Your task to perform on an android device: Go to Google maps Image 0: 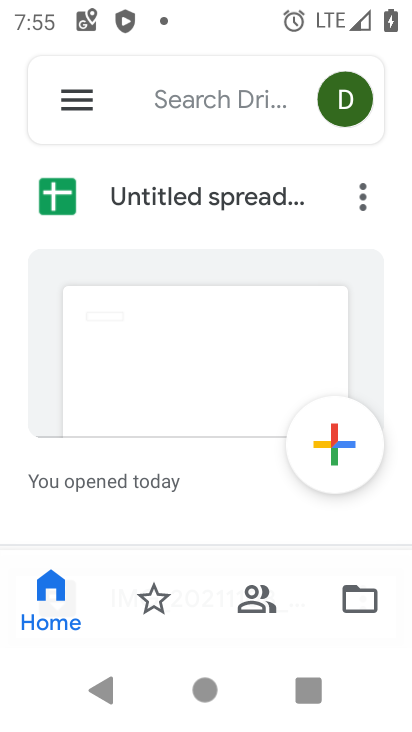
Step 0: press home button
Your task to perform on an android device: Go to Google maps Image 1: 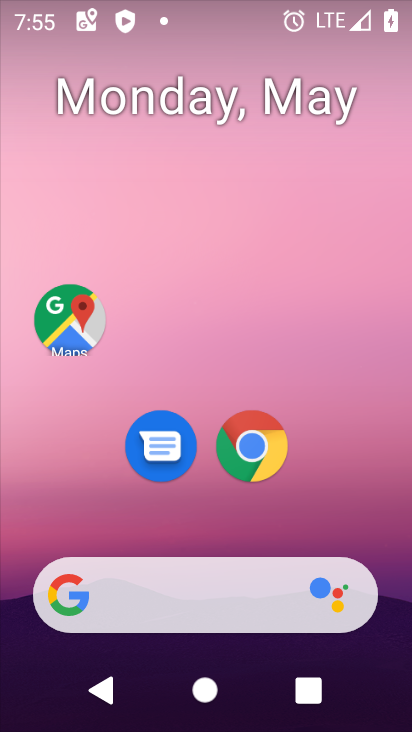
Step 1: click (66, 316)
Your task to perform on an android device: Go to Google maps Image 2: 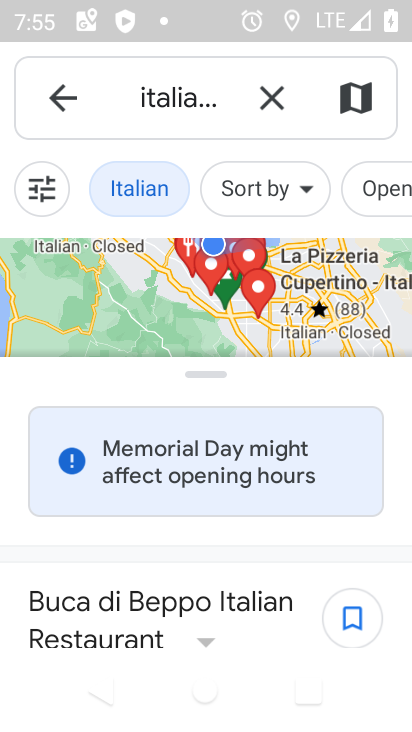
Step 2: click (272, 100)
Your task to perform on an android device: Go to Google maps Image 3: 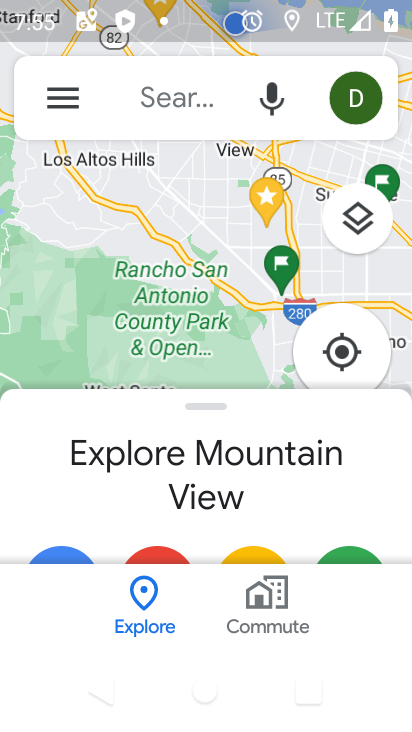
Step 3: task complete